Your task to perform on an android device: Open Chrome and go to settings Image 0: 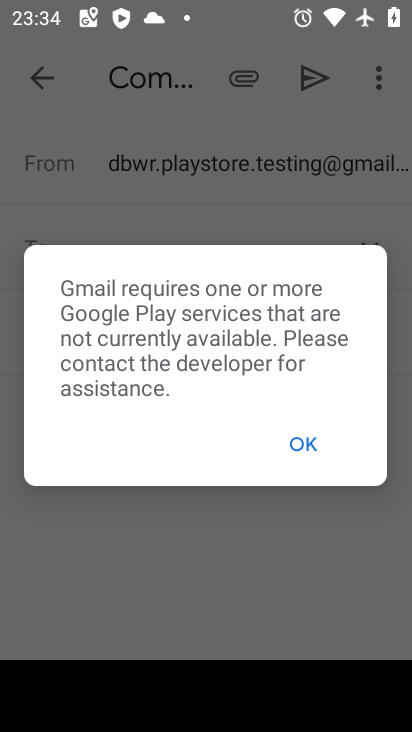
Step 0: press home button
Your task to perform on an android device: Open Chrome and go to settings Image 1: 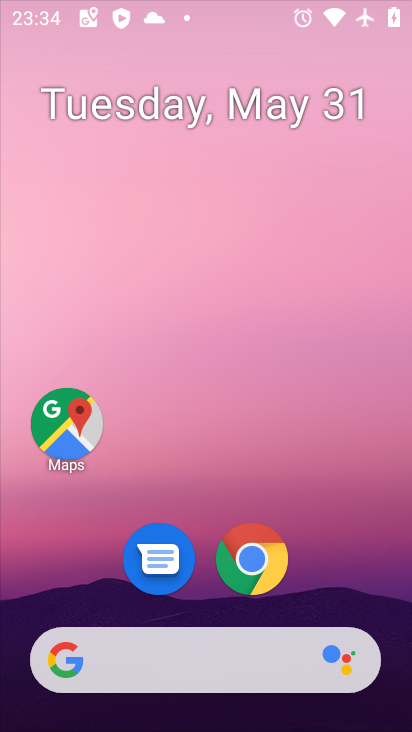
Step 1: drag from (313, 566) to (306, 55)
Your task to perform on an android device: Open Chrome and go to settings Image 2: 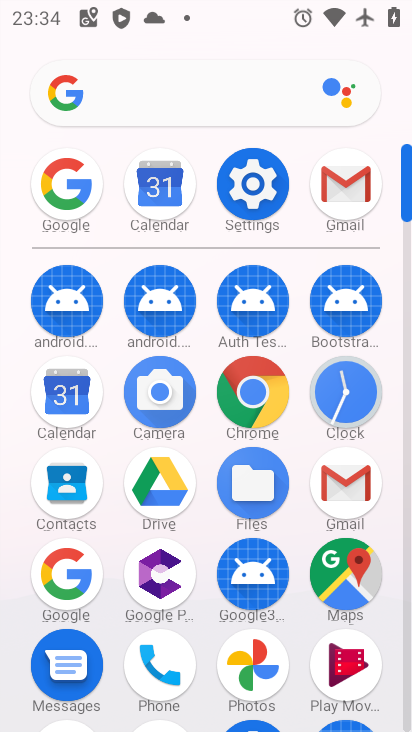
Step 2: click (256, 390)
Your task to perform on an android device: Open Chrome and go to settings Image 3: 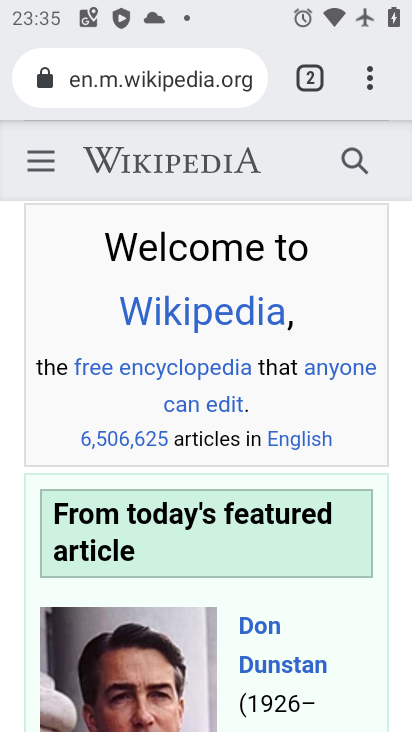
Step 3: task complete